Your task to perform on an android device: Search for vegetarian restaurants on Maps Image 0: 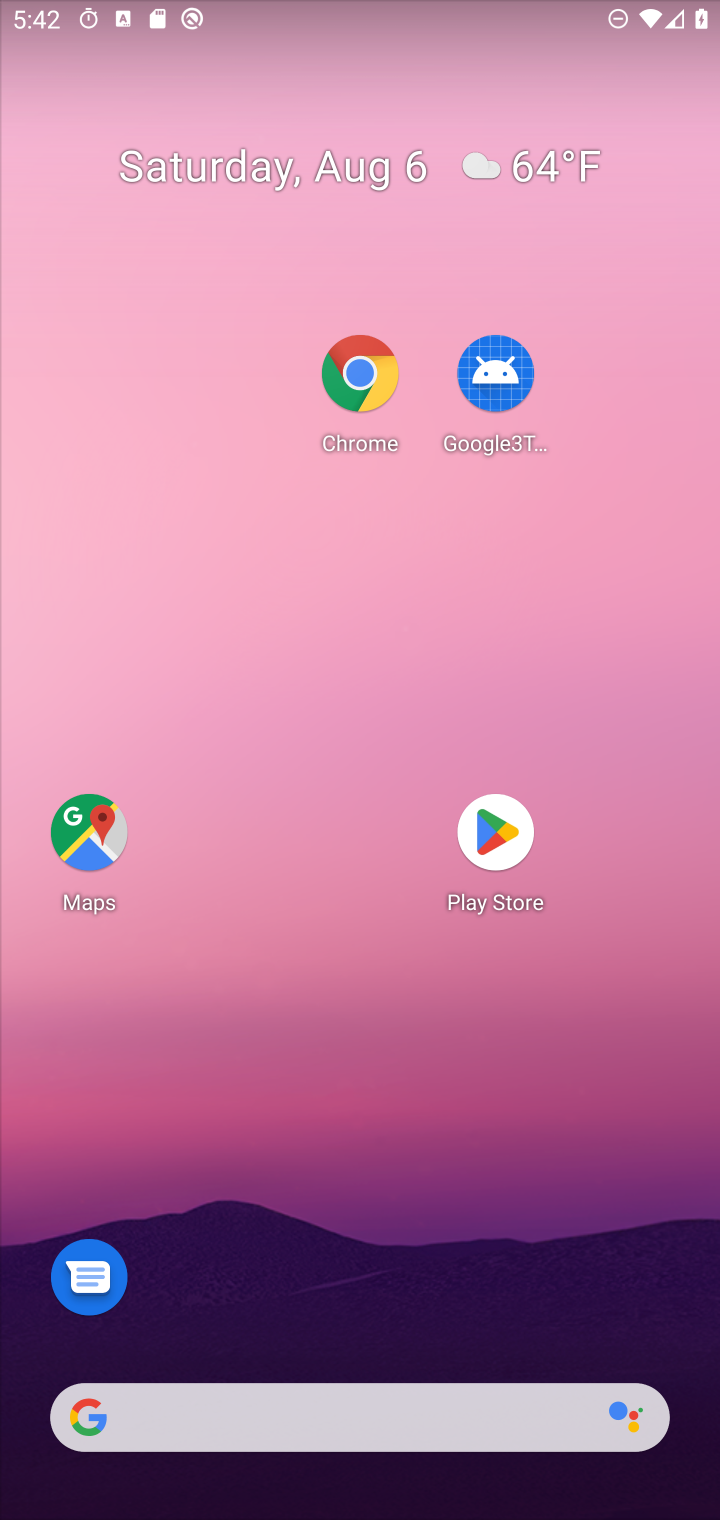
Step 0: drag from (291, 1444) to (399, 376)
Your task to perform on an android device: Search for vegetarian restaurants on Maps Image 1: 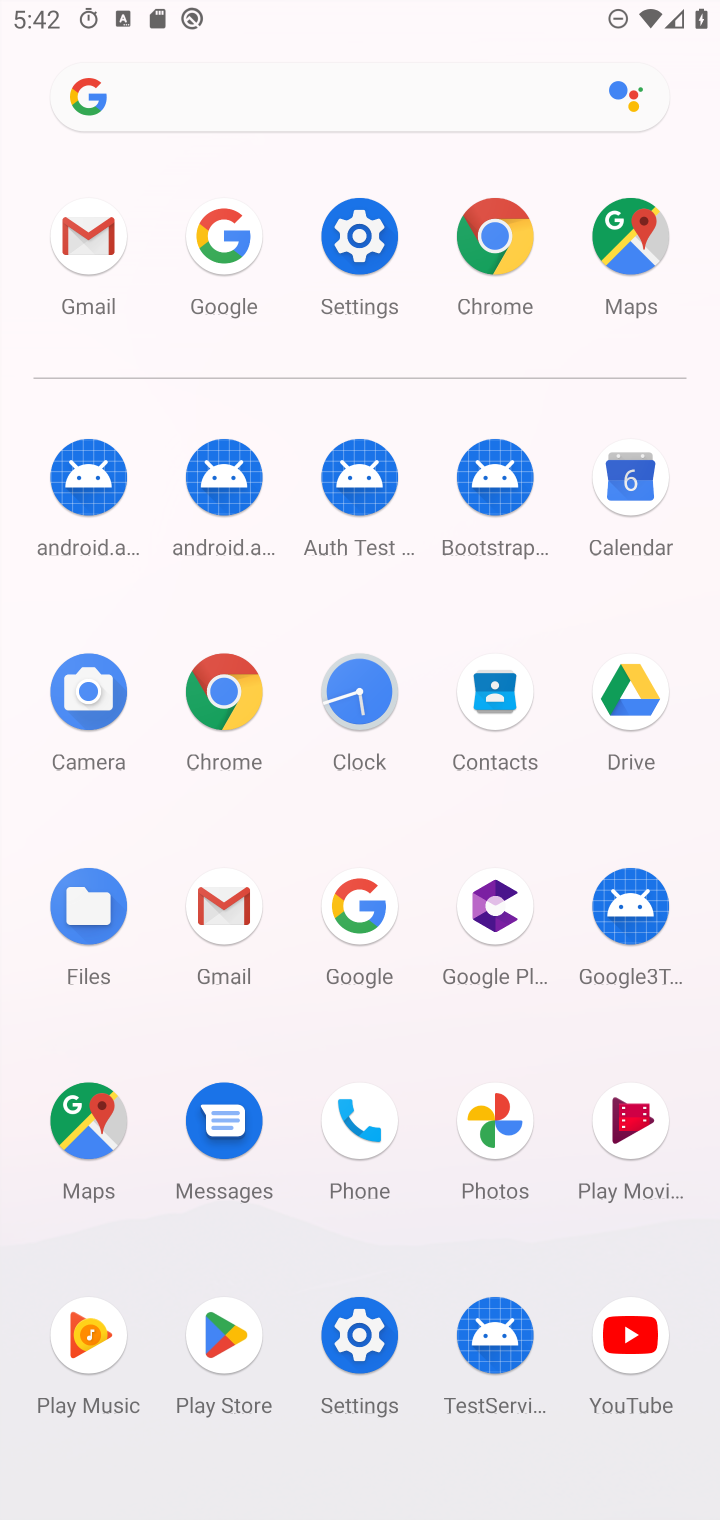
Step 1: click (75, 1100)
Your task to perform on an android device: Search for vegetarian restaurants on Maps Image 2: 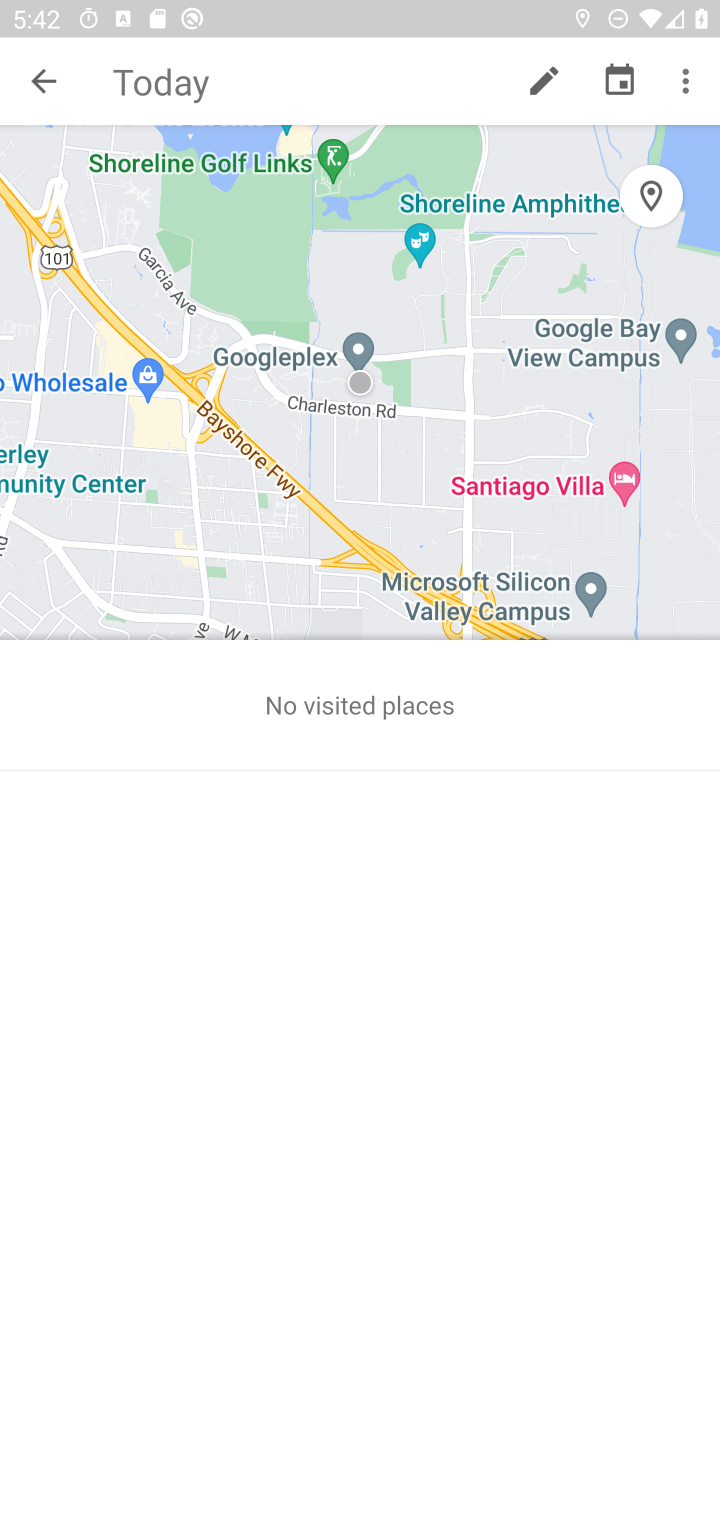
Step 2: press back button
Your task to perform on an android device: Search for vegetarian restaurants on Maps Image 3: 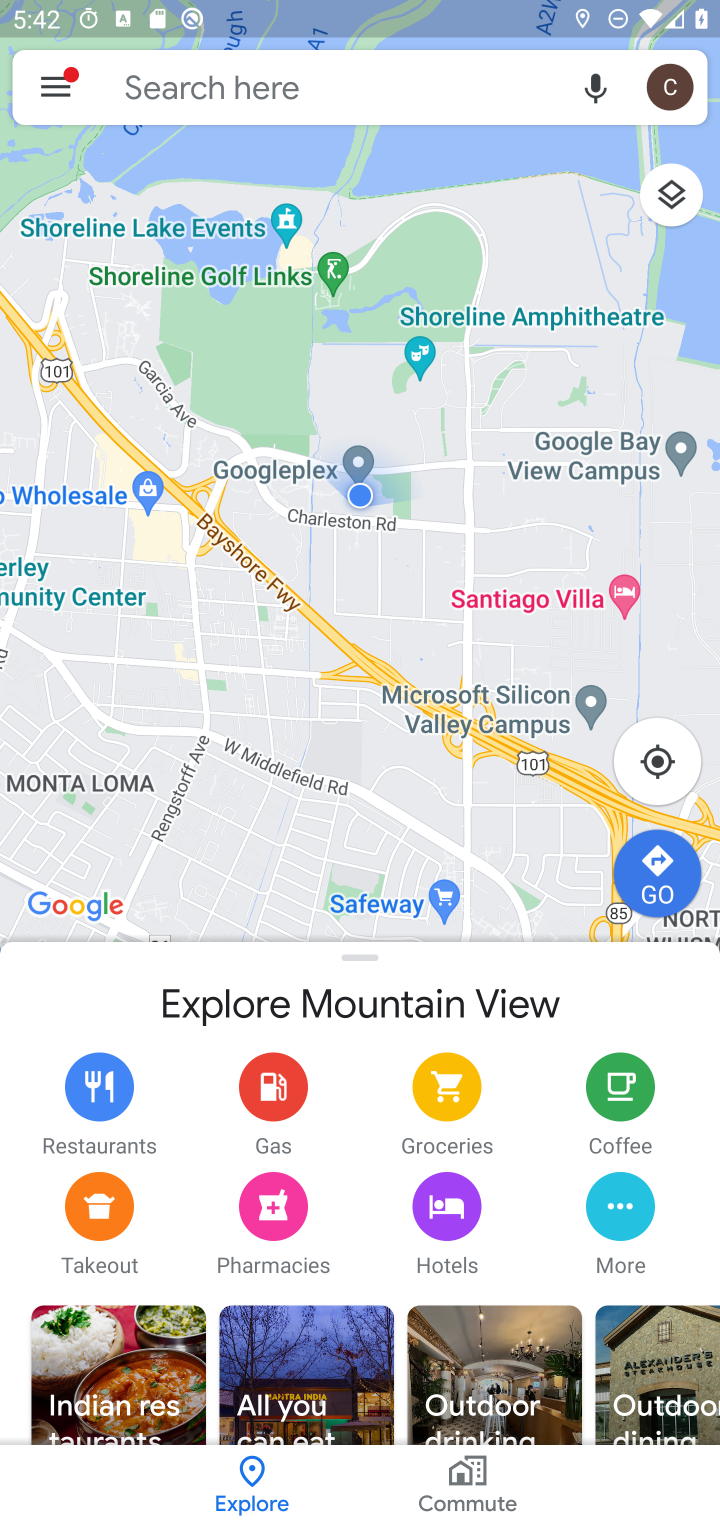
Step 3: click (181, 87)
Your task to perform on an android device: Search for vegetarian restaurants on Maps Image 4: 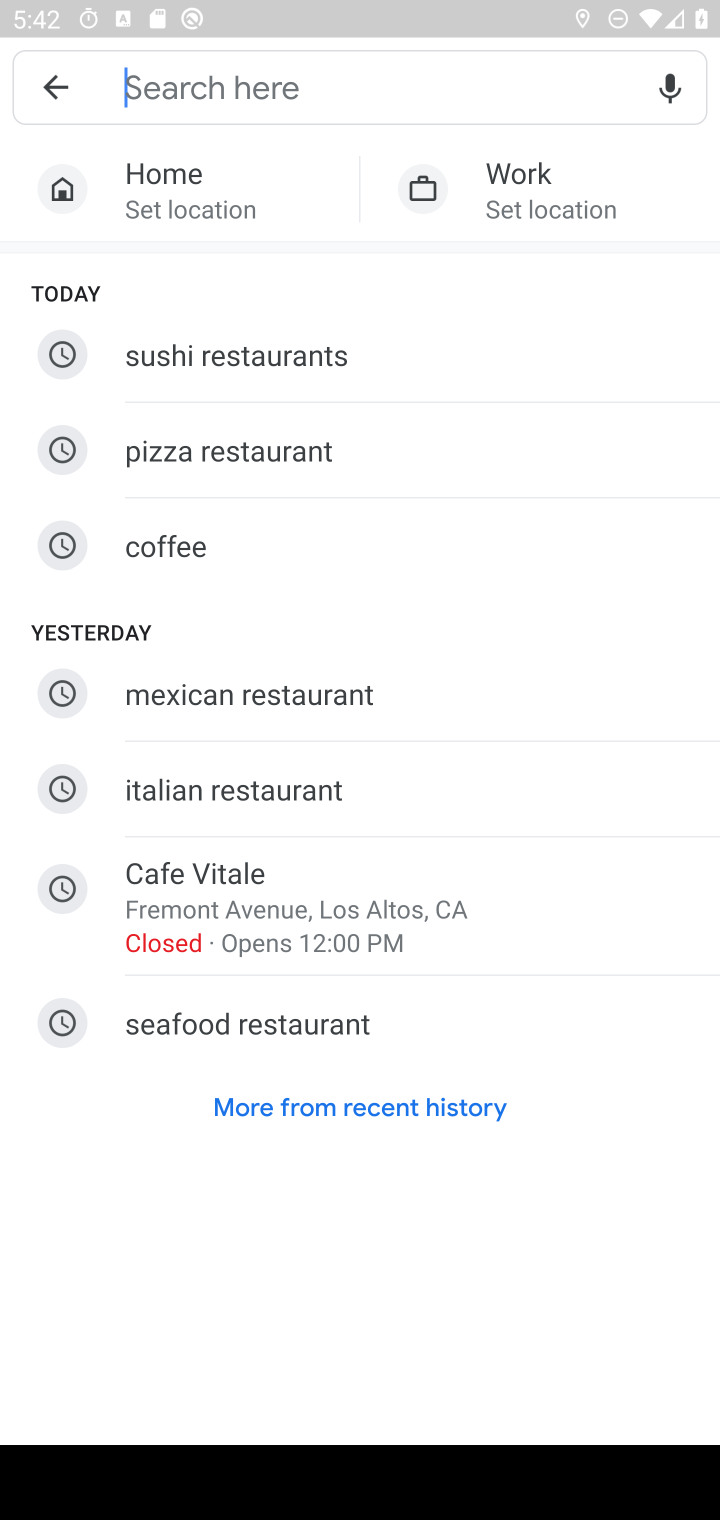
Step 4: type "vegetarian restaurant"
Your task to perform on an android device: Search for vegetarian restaurants on Maps Image 5: 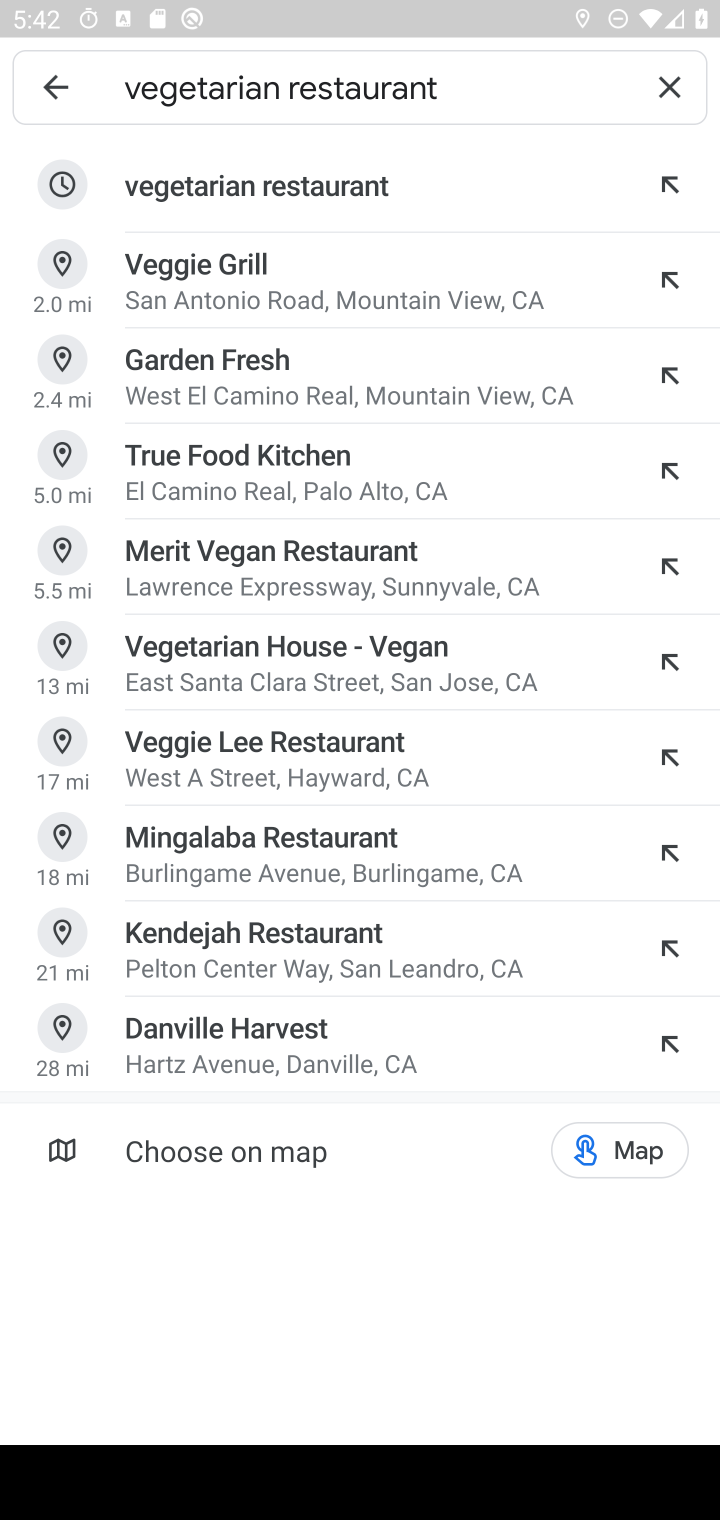
Step 5: click (220, 195)
Your task to perform on an android device: Search for vegetarian restaurants on Maps Image 6: 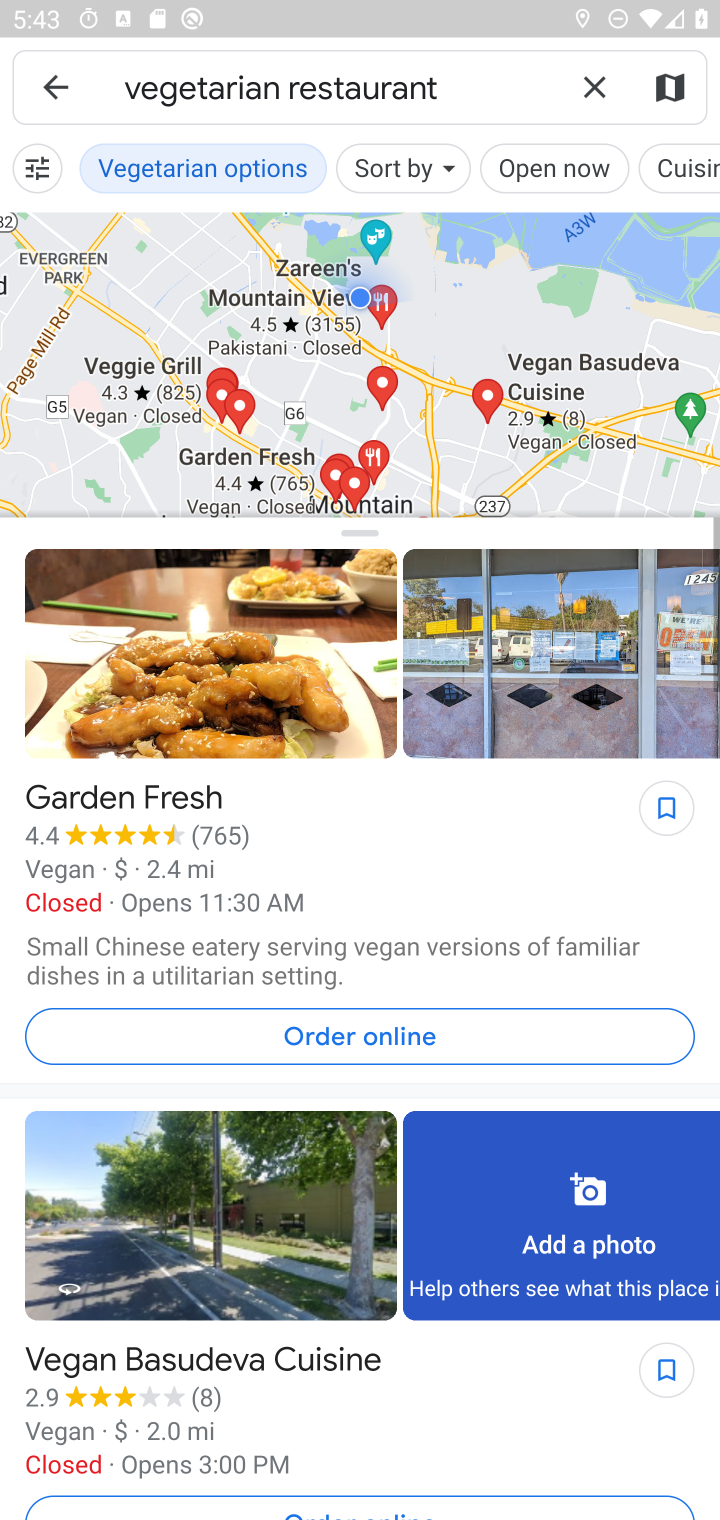
Step 6: task complete